Your task to perform on an android device: turn off picture-in-picture Image 0: 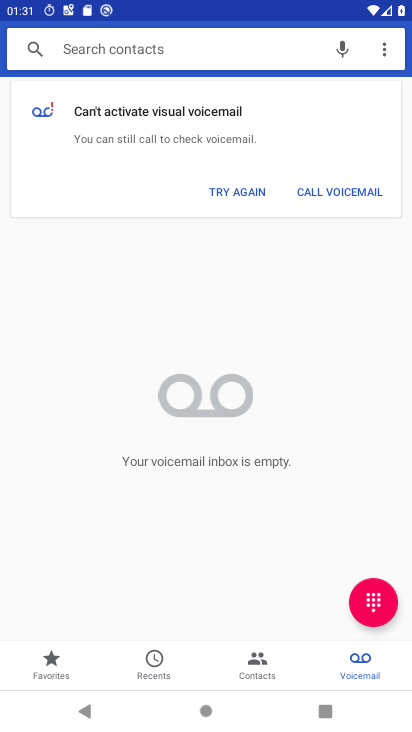
Step 0: press home button
Your task to perform on an android device: turn off picture-in-picture Image 1: 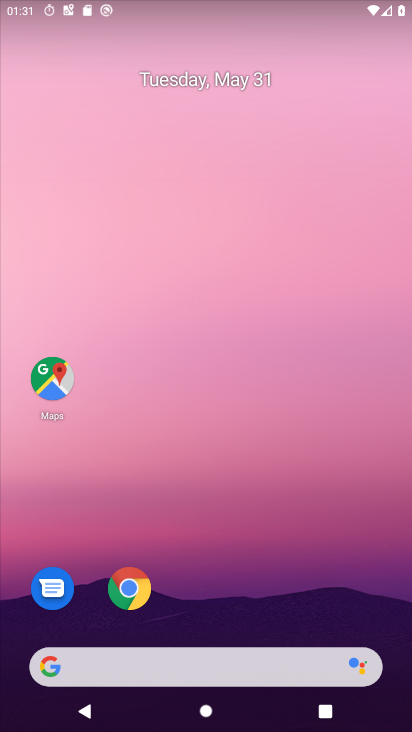
Step 1: drag from (324, 670) to (362, 103)
Your task to perform on an android device: turn off picture-in-picture Image 2: 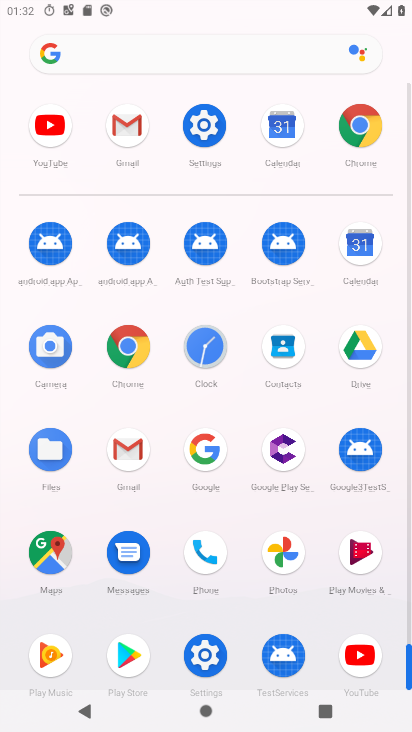
Step 2: click (205, 142)
Your task to perform on an android device: turn off picture-in-picture Image 3: 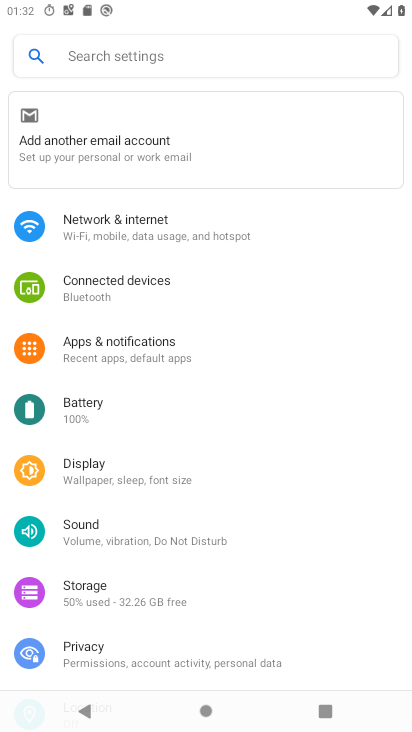
Step 3: drag from (291, 669) to (241, 18)
Your task to perform on an android device: turn off picture-in-picture Image 4: 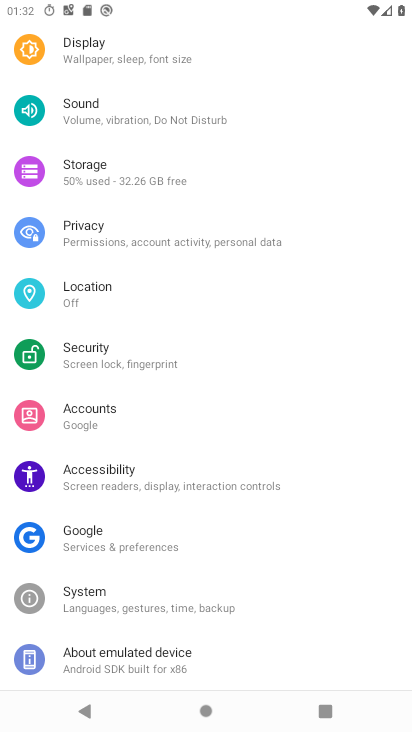
Step 4: drag from (191, 215) to (239, 154)
Your task to perform on an android device: turn off picture-in-picture Image 5: 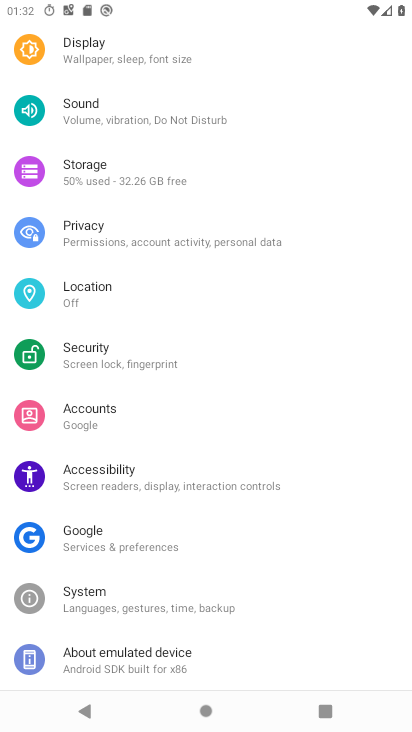
Step 5: drag from (194, 268) to (276, 669)
Your task to perform on an android device: turn off picture-in-picture Image 6: 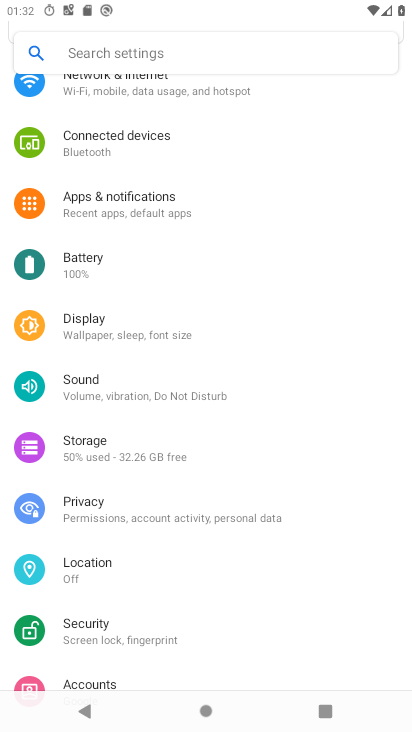
Step 6: drag from (290, 189) to (348, 579)
Your task to perform on an android device: turn off picture-in-picture Image 7: 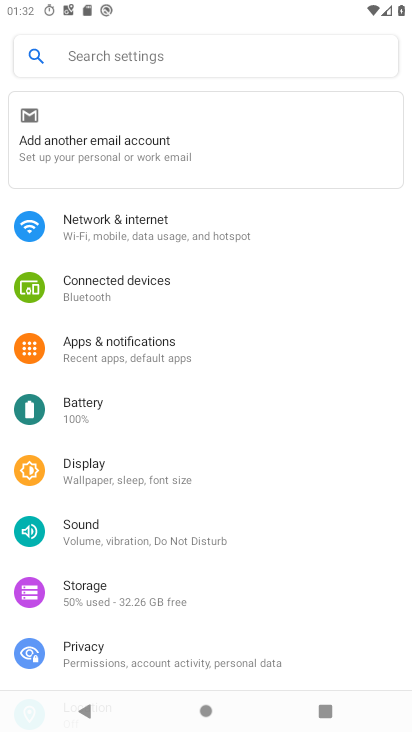
Step 7: click (149, 350)
Your task to perform on an android device: turn off picture-in-picture Image 8: 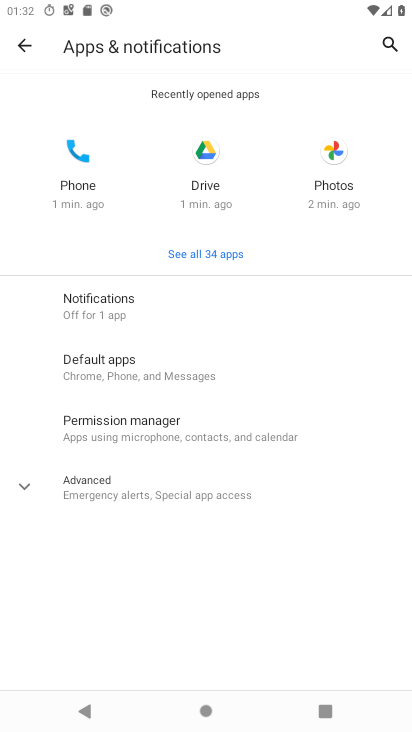
Step 8: drag from (295, 625) to (270, 375)
Your task to perform on an android device: turn off picture-in-picture Image 9: 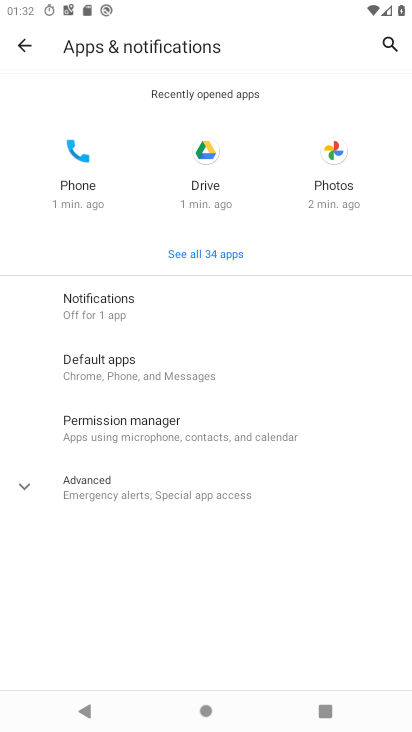
Step 9: click (129, 497)
Your task to perform on an android device: turn off picture-in-picture Image 10: 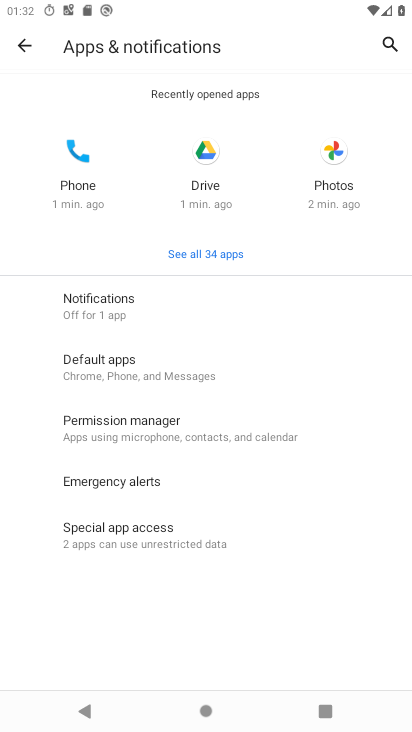
Step 10: click (138, 531)
Your task to perform on an android device: turn off picture-in-picture Image 11: 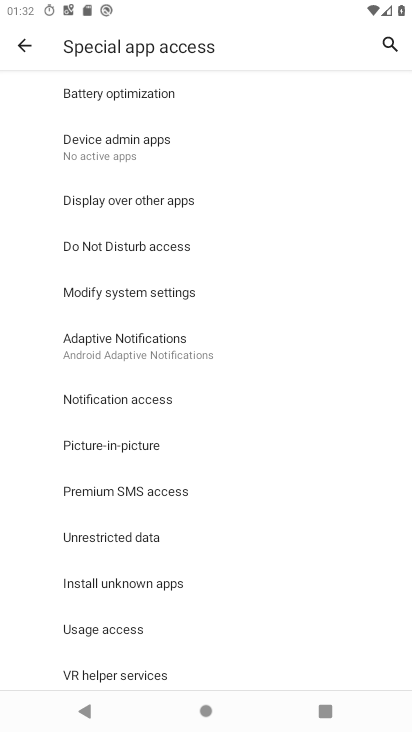
Step 11: click (122, 444)
Your task to perform on an android device: turn off picture-in-picture Image 12: 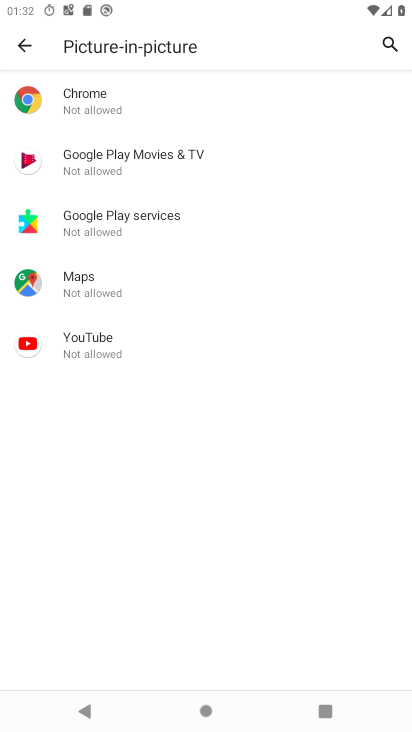
Step 12: task complete